Your task to perform on an android device: What is the news today? Image 0: 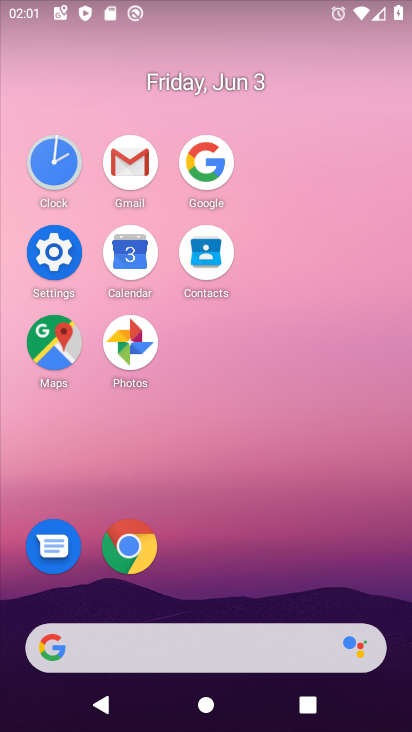
Step 0: click (199, 169)
Your task to perform on an android device: What is the news today? Image 1: 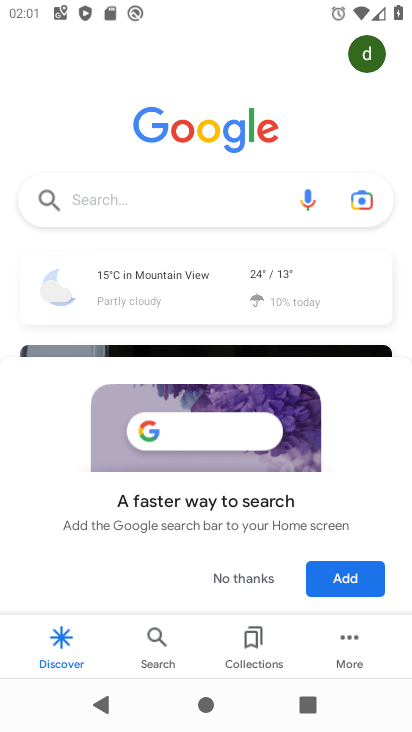
Step 1: click (204, 190)
Your task to perform on an android device: What is the news today? Image 2: 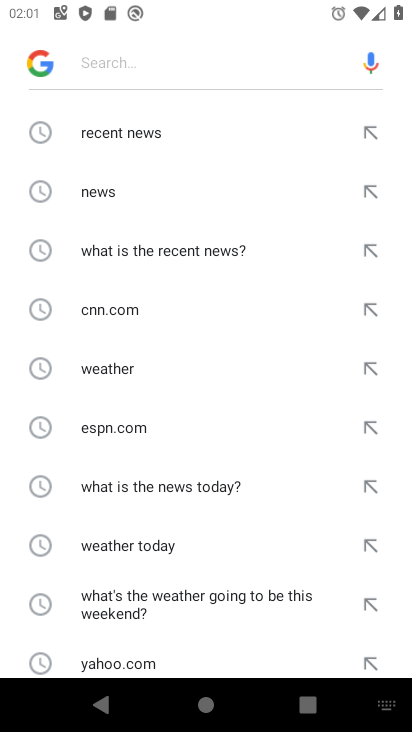
Step 2: click (163, 481)
Your task to perform on an android device: What is the news today? Image 3: 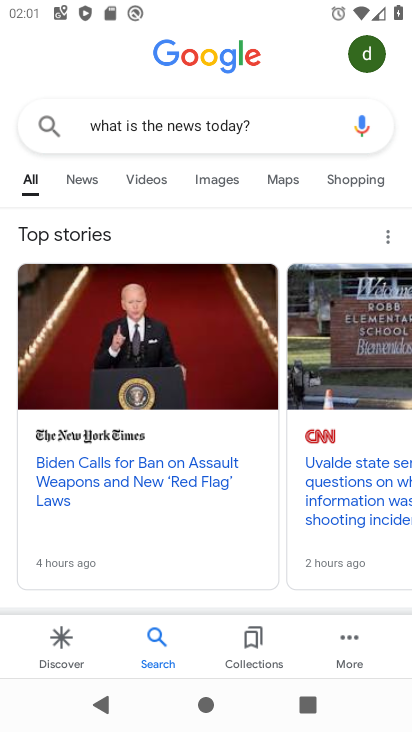
Step 3: task complete